Your task to perform on an android device: read, delete, or share a saved page in the chrome app Image 0: 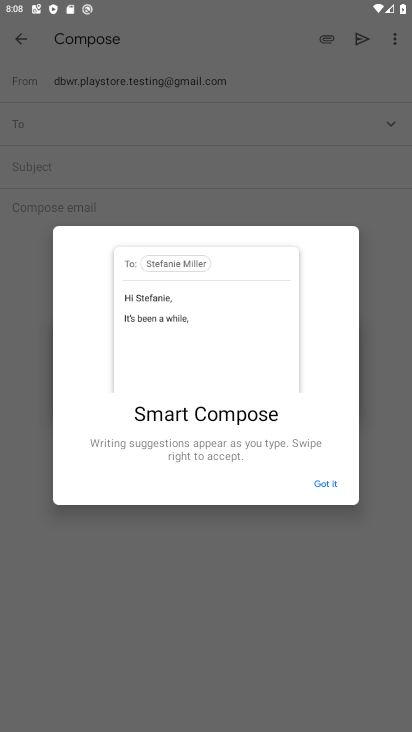
Step 0: press home button
Your task to perform on an android device: read, delete, or share a saved page in the chrome app Image 1: 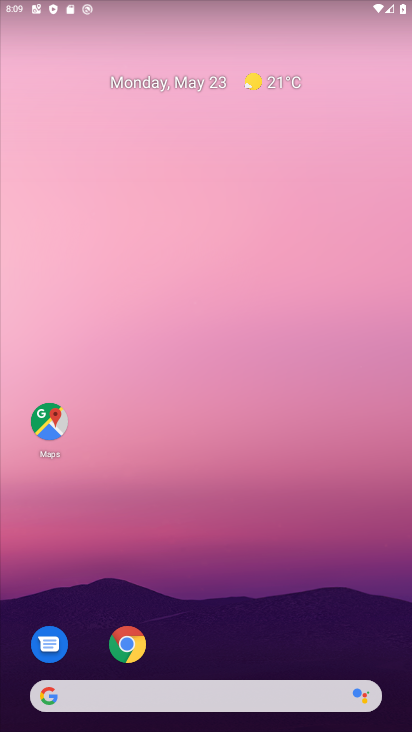
Step 1: click (122, 632)
Your task to perform on an android device: read, delete, or share a saved page in the chrome app Image 2: 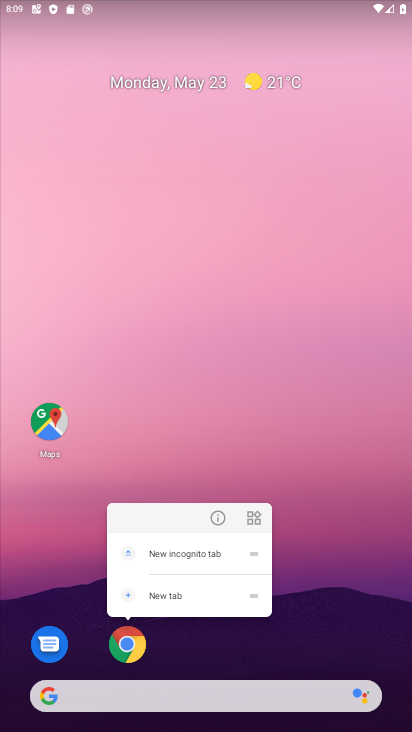
Step 2: click (134, 645)
Your task to perform on an android device: read, delete, or share a saved page in the chrome app Image 3: 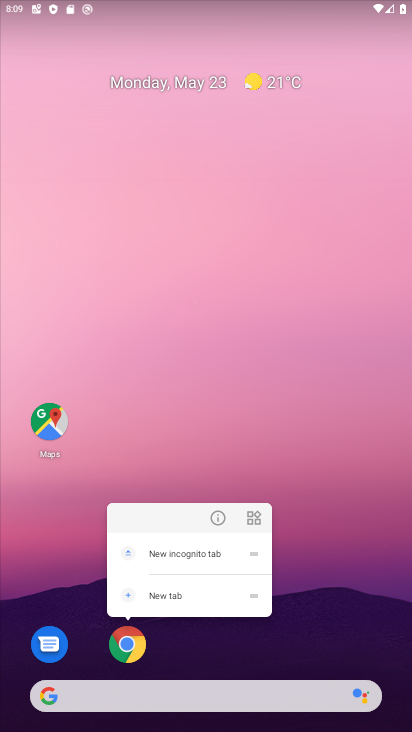
Step 3: click (134, 645)
Your task to perform on an android device: read, delete, or share a saved page in the chrome app Image 4: 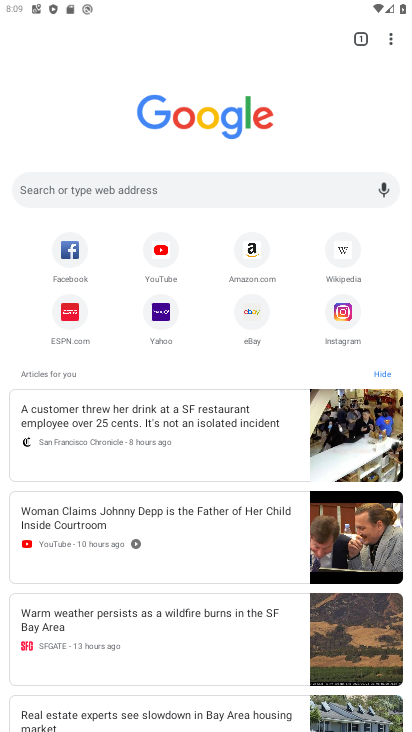
Step 4: click (392, 36)
Your task to perform on an android device: read, delete, or share a saved page in the chrome app Image 5: 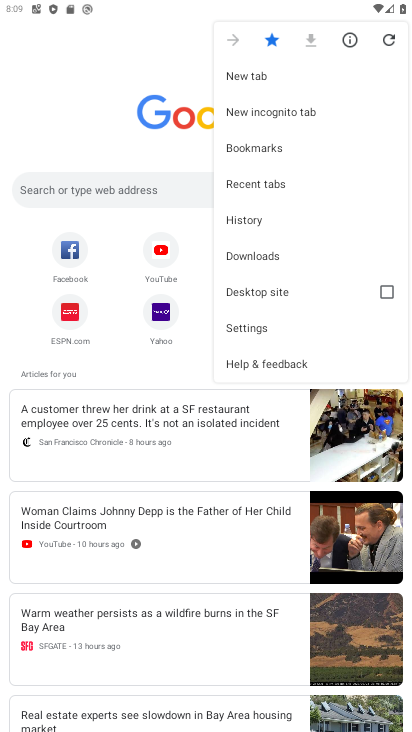
Step 5: click (244, 258)
Your task to perform on an android device: read, delete, or share a saved page in the chrome app Image 6: 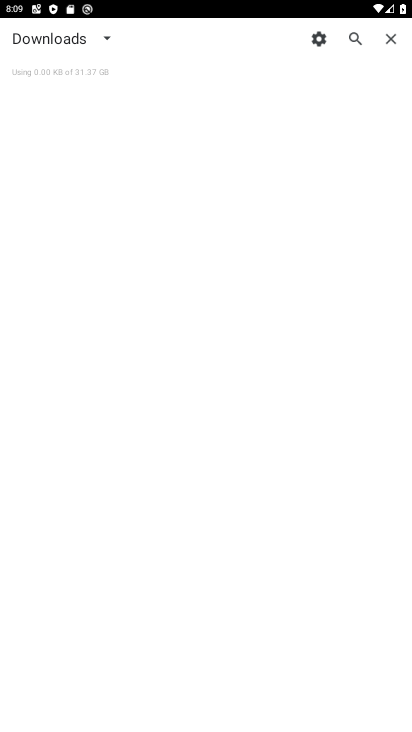
Step 6: task complete